Your task to perform on an android device: turn off translation in the chrome app Image 0: 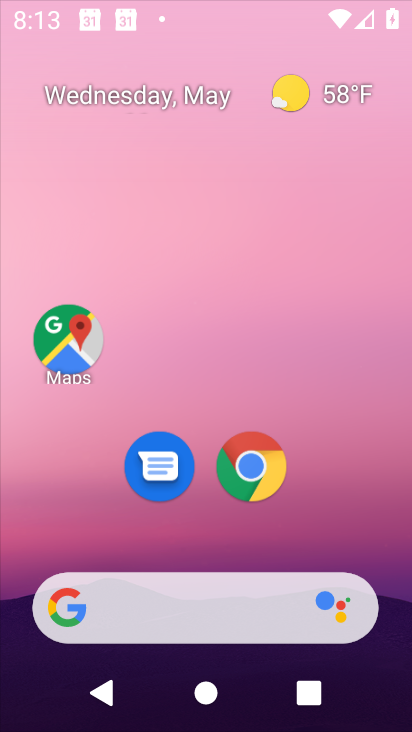
Step 0: press home button
Your task to perform on an android device: turn off translation in the chrome app Image 1: 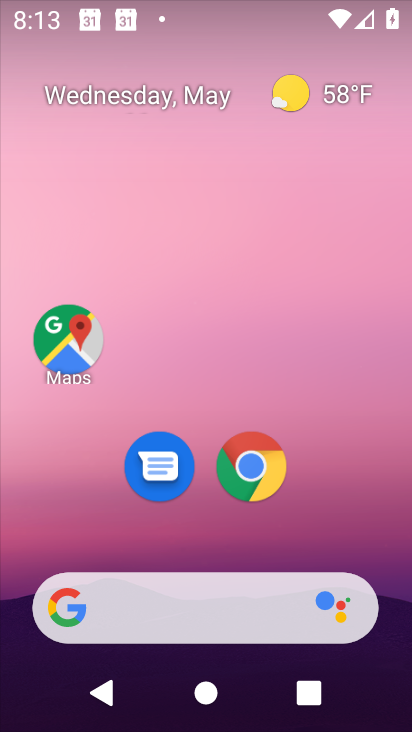
Step 1: click (252, 480)
Your task to perform on an android device: turn off translation in the chrome app Image 2: 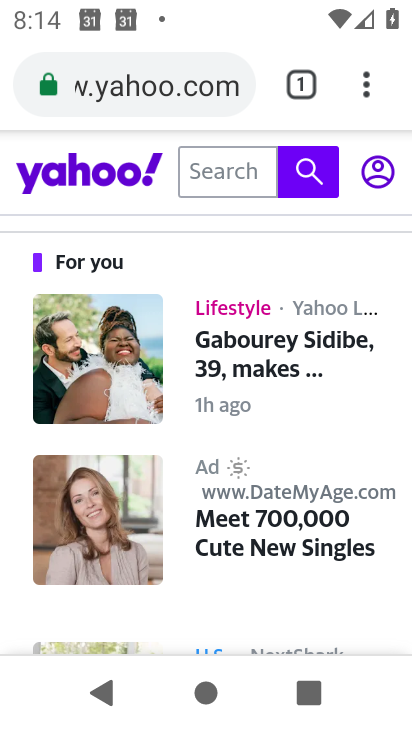
Step 2: click (370, 72)
Your task to perform on an android device: turn off translation in the chrome app Image 3: 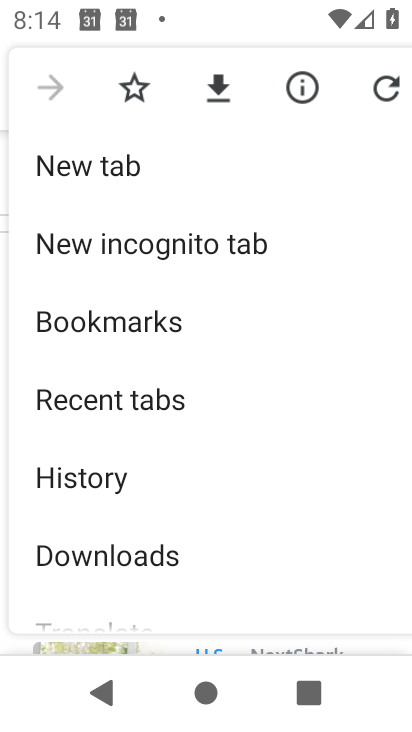
Step 3: drag from (272, 549) to (265, 136)
Your task to perform on an android device: turn off translation in the chrome app Image 4: 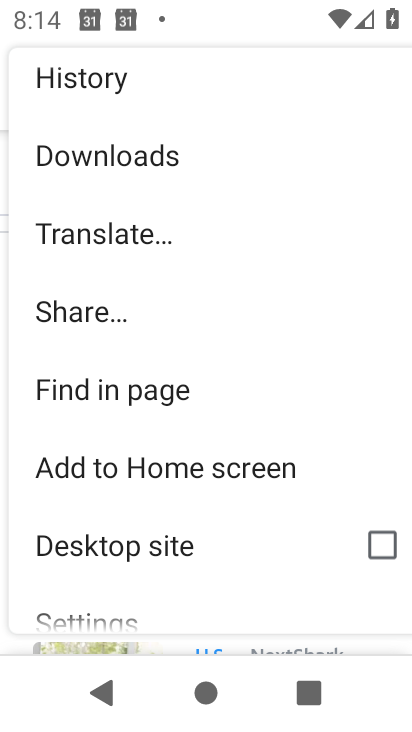
Step 4: click (162, 605)
Your task to perform on an android device: turn off translation in the chrome app Image 5: 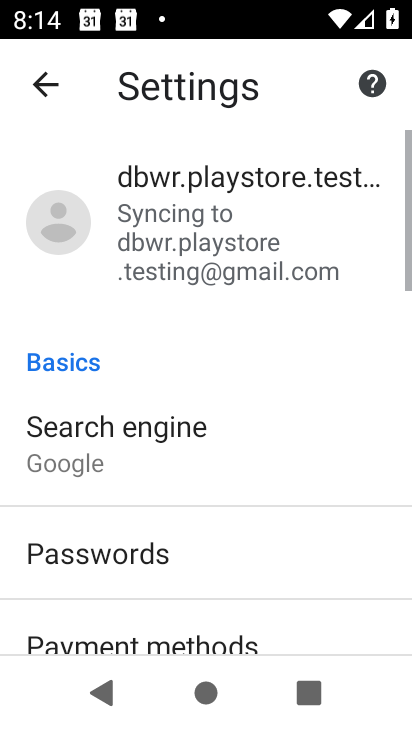
Step 5: drag from (205, 575) to (212, 94)
Your task to perform on an android device: turn off translation in the chrome app Image 6: 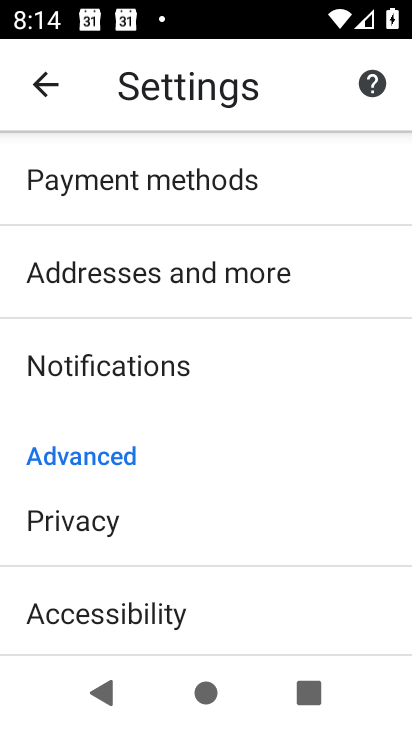
Step 6: drag from (198, 189) to (196, 110)
Your task to perform on an android device: turn off translation in the chrome app Image 7: 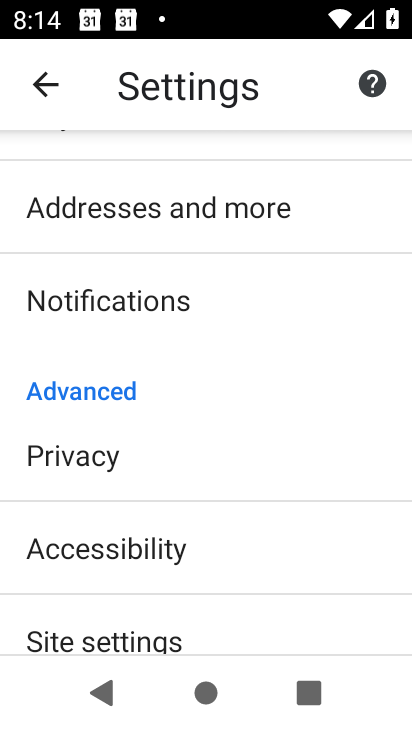
Step 7: drag from (208, 578) to (209, 135)
Your task to perform on an android device: turn off translation in the chrome app Image 8: 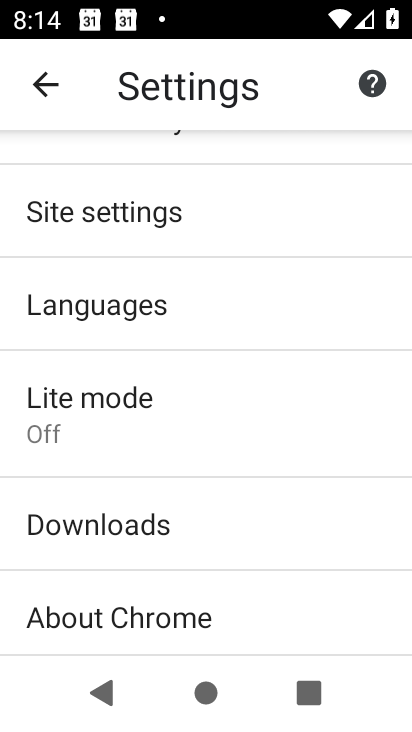
Step 8: click (147, 297)
Your task to perform on an android device: turn off translation in the chrome app Image 9: 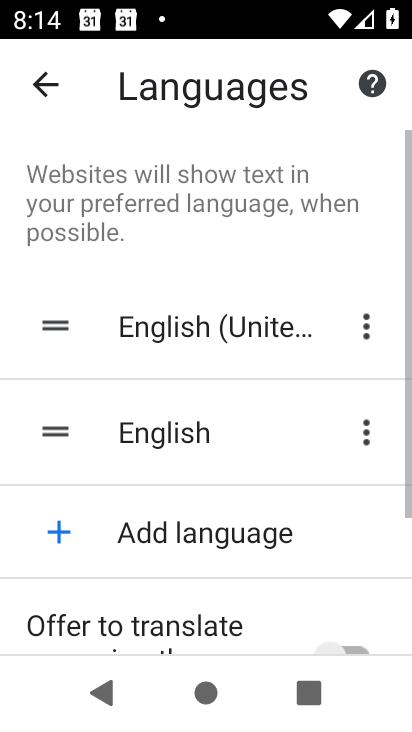
Step 9: task complete